Your task to perform on an android device: toggle translation in the chrome app Image 0: 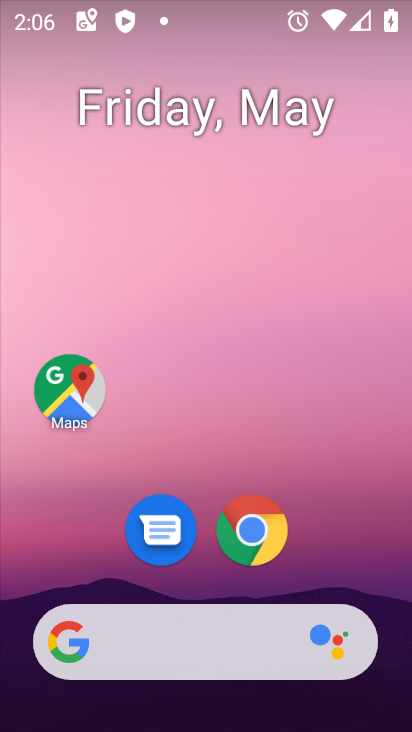
Step 0: click (240, 525)
Your task to perform on an android device: toggle translation in the chrome app Image 1: 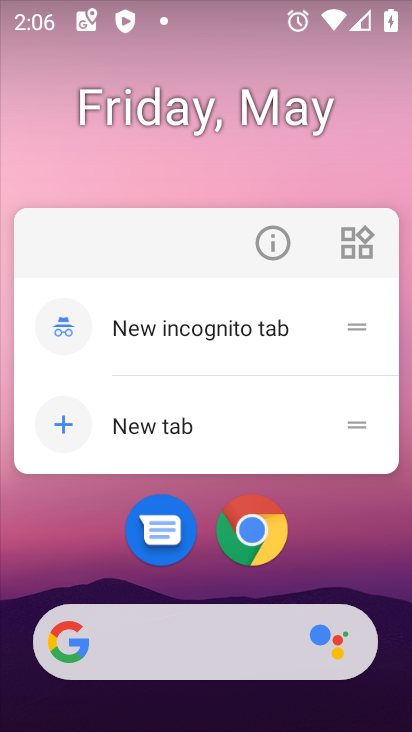
Step 1: click (227, 533)
Your task to perform on an android device: toggle translation in the chrome app Image 2: 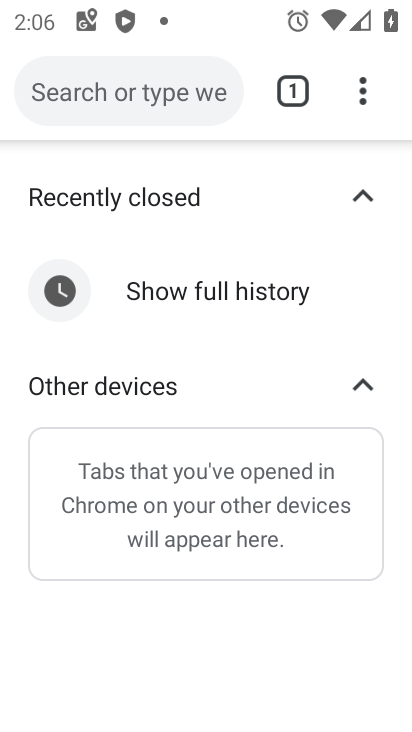
Step 2: click (356, 90)
Your task to perform on an android device: toggle translation in the chrome app Image 3: 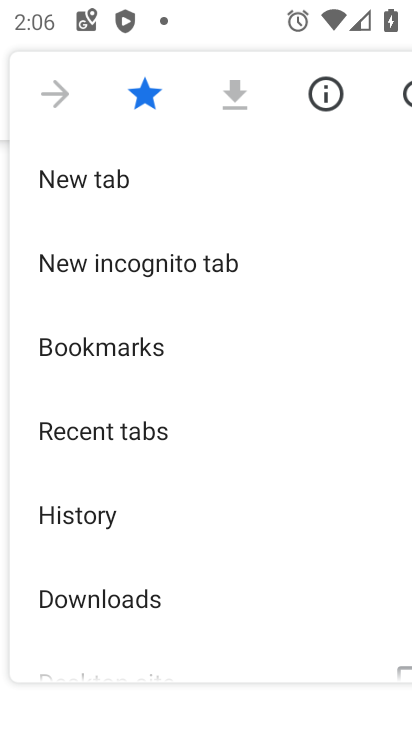
Step 3: drag from (169, 609) to (177, 155)
Your task to perform on an android device: toggle translation in the chrome app Image 4: 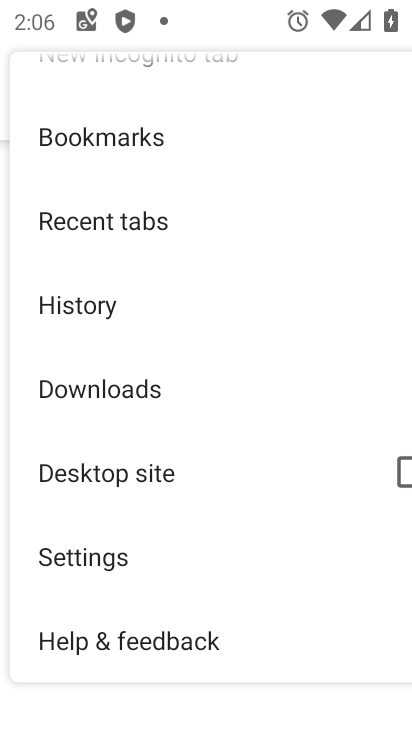
Step 4: click (126, 570)
Your task to perform on an android device: toggle translation in the chrome app Image 5: 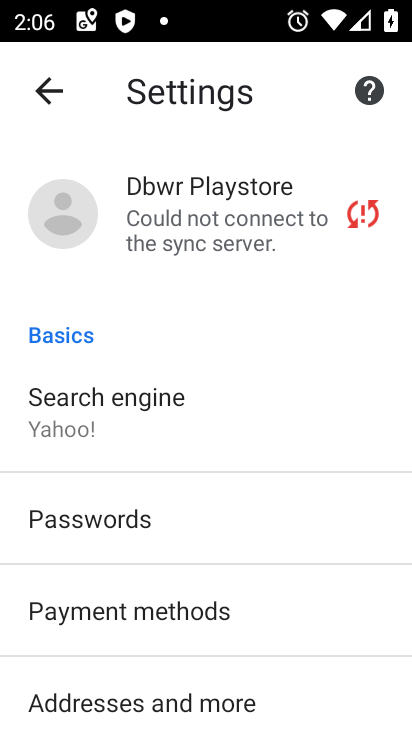
Step 5: drag from (150, 625) to (148, 139)
Your task to perform on an android device: toggle translation in the chrome app Image 6: 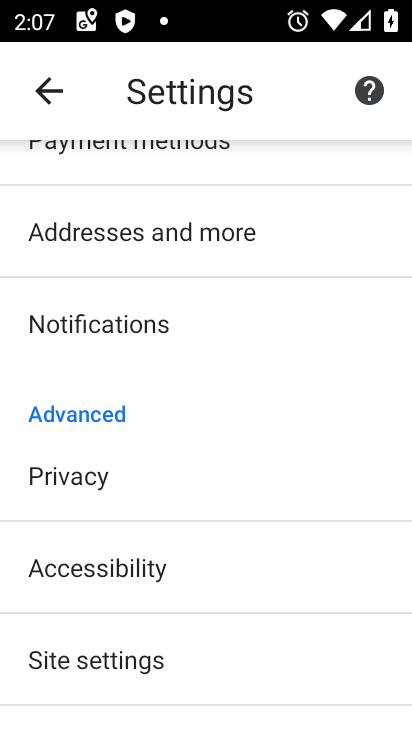
Step 6: drag from (121, 629) to (124, 307)
Your task to perform on an android device: toggle translation in the chrome app Image 7: 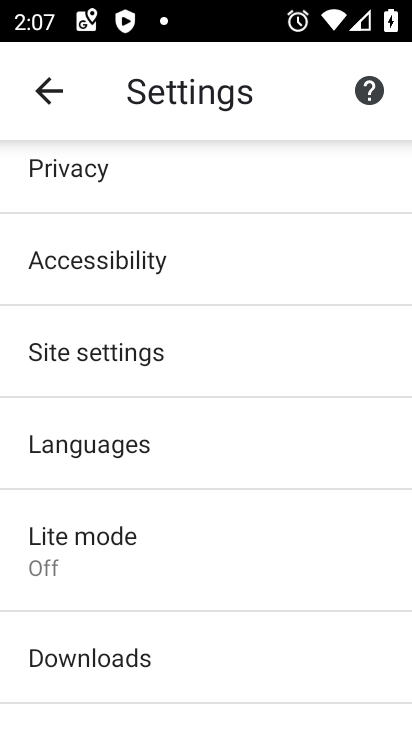
Step 7: click (104, 431)
Your task to perform on an android device: toggle translation in the chrome app Image 8: 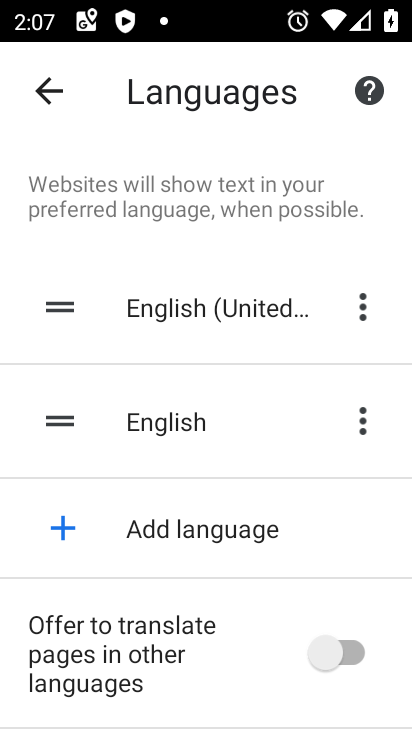
Step 8: click (341, 644)
Your task to perform on an android device: toggle translation in the chrome app Image 9: 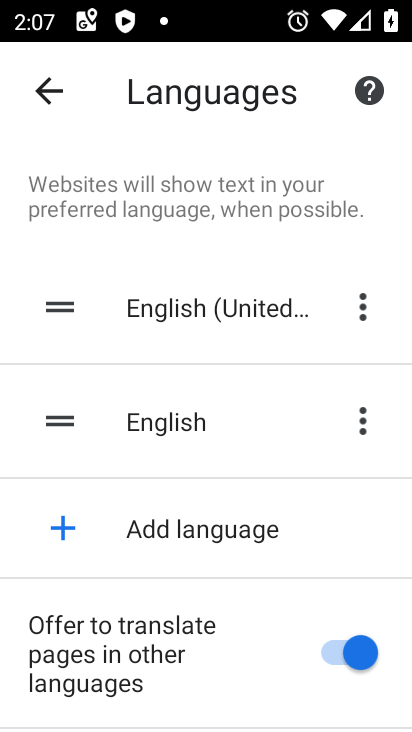
Step 9: task complete